Your task to perform on an android device: Add "razer blade" to the cart on walmart.com Image 0: 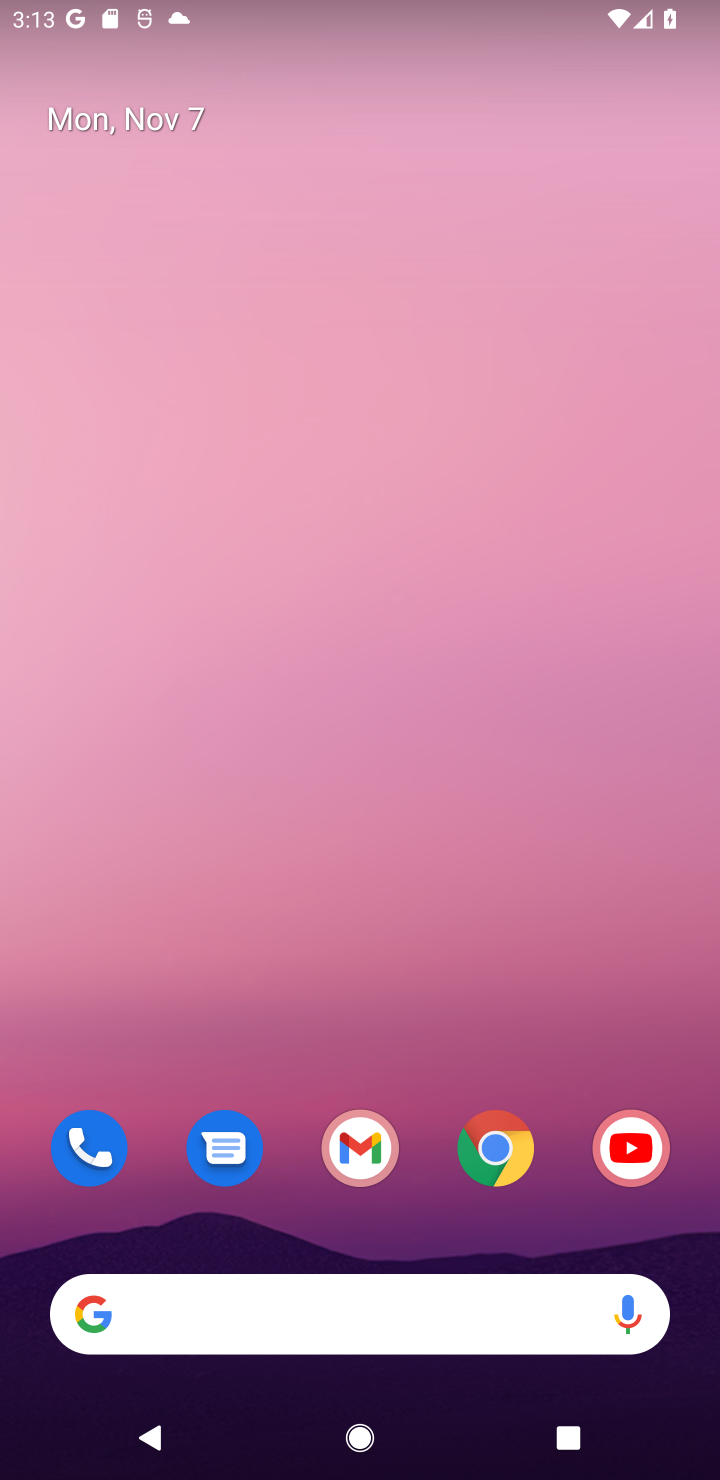
Step 0: drag from (337, 677) to (318, 347)
Your task to perform on an android device: Add "razer blade" to the cart on walmart.com Image 1: 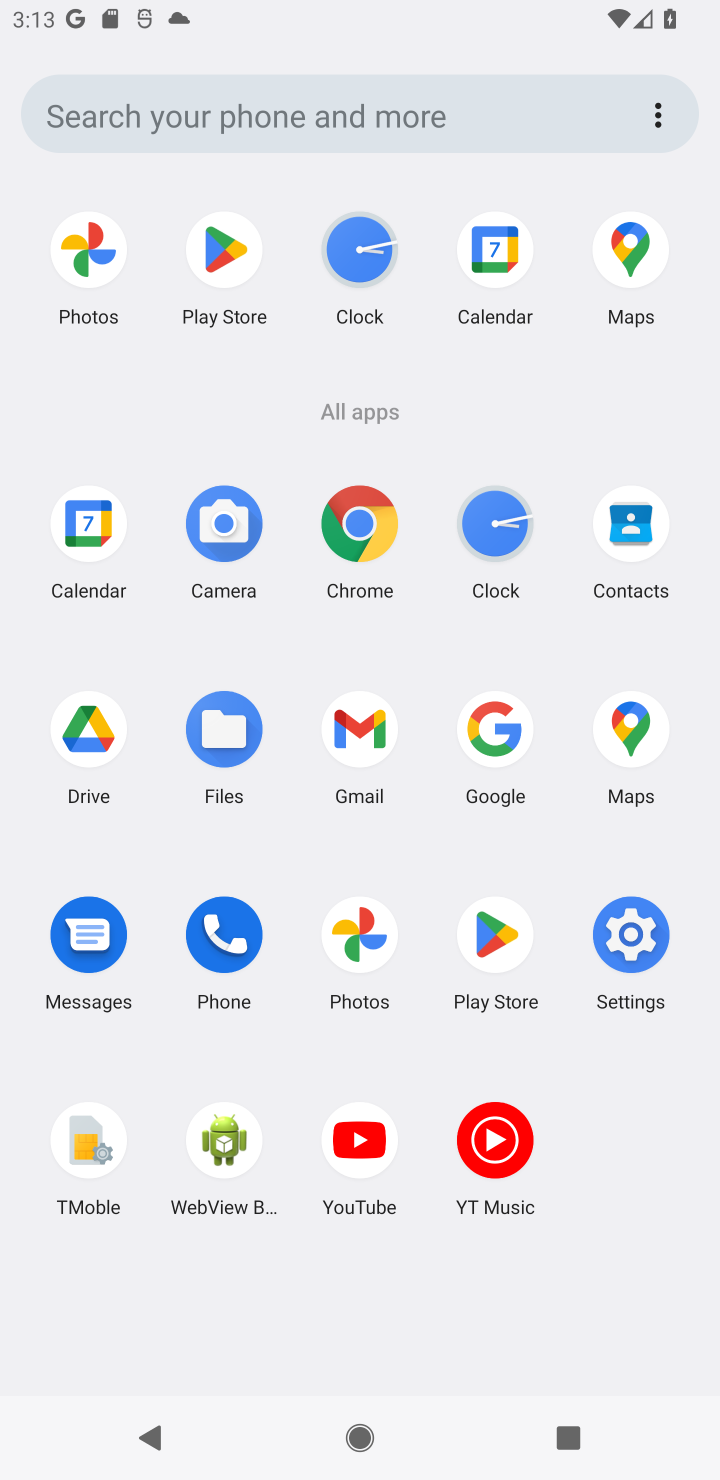
Step 1: click (366, 539)
Your task to perform on an android device: Add "razer blade" to the cart on walmart.com Image 2: 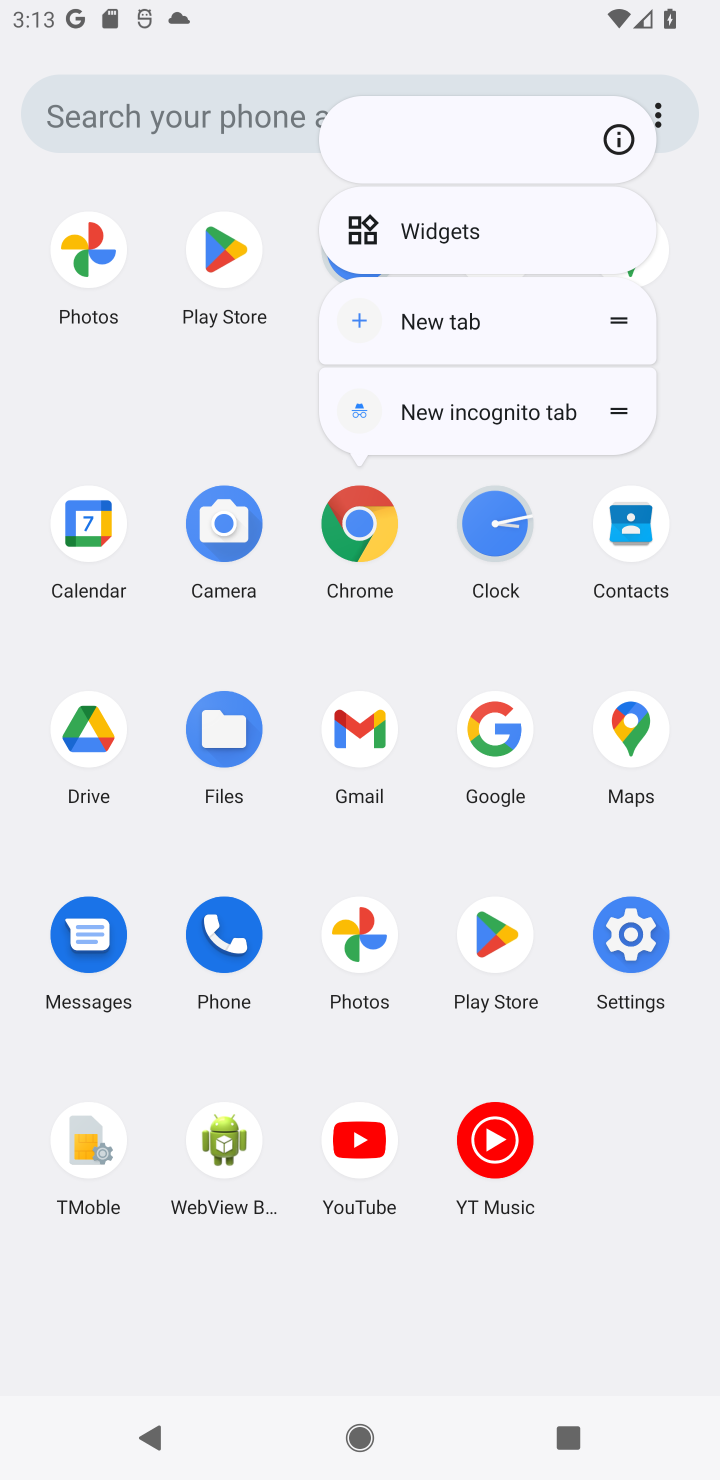
Step 2: click (366, 540)
Your task to perform on an android device: Add "razer blade" to the cart on walmart.com Image 3: 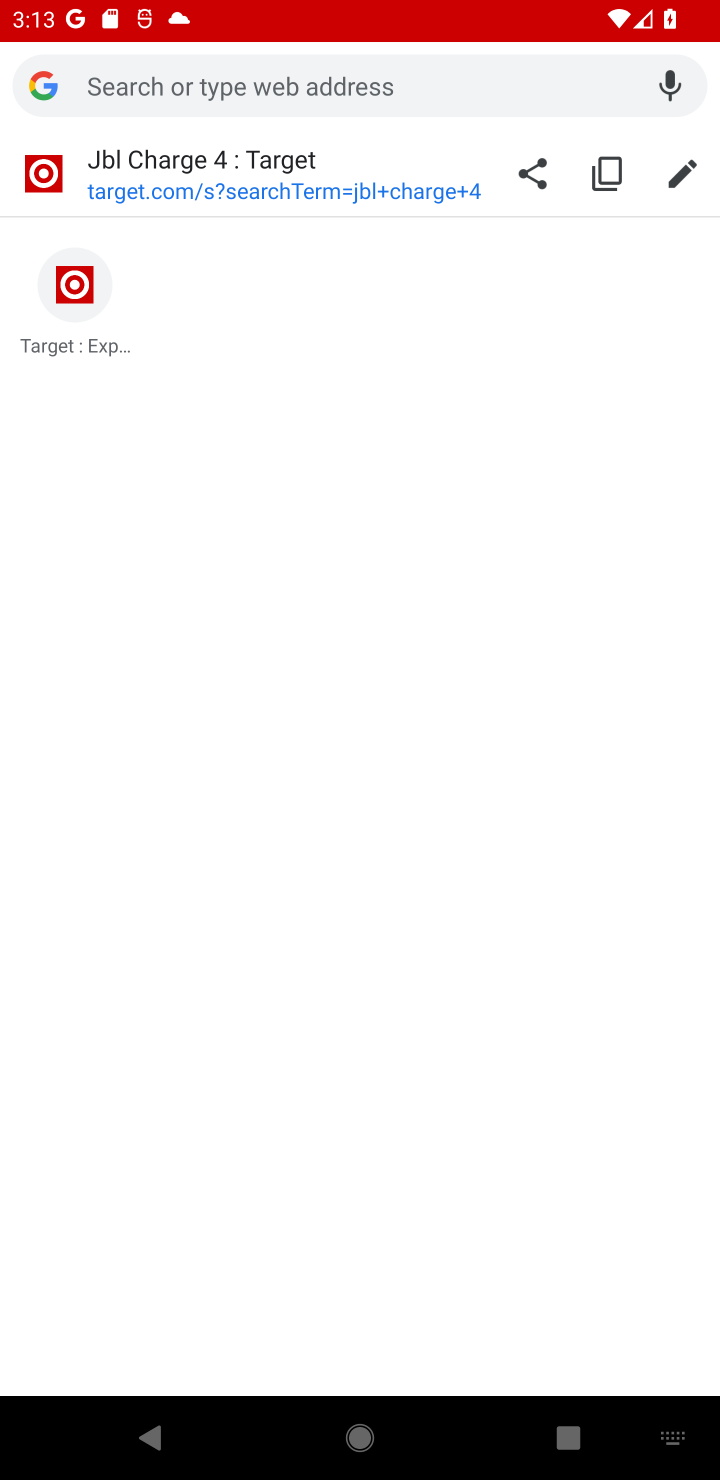
Step 3: type "walmart.com"
Your task to perform on an android device: Add "razer blade" to the cart on walmart.com Image 4: 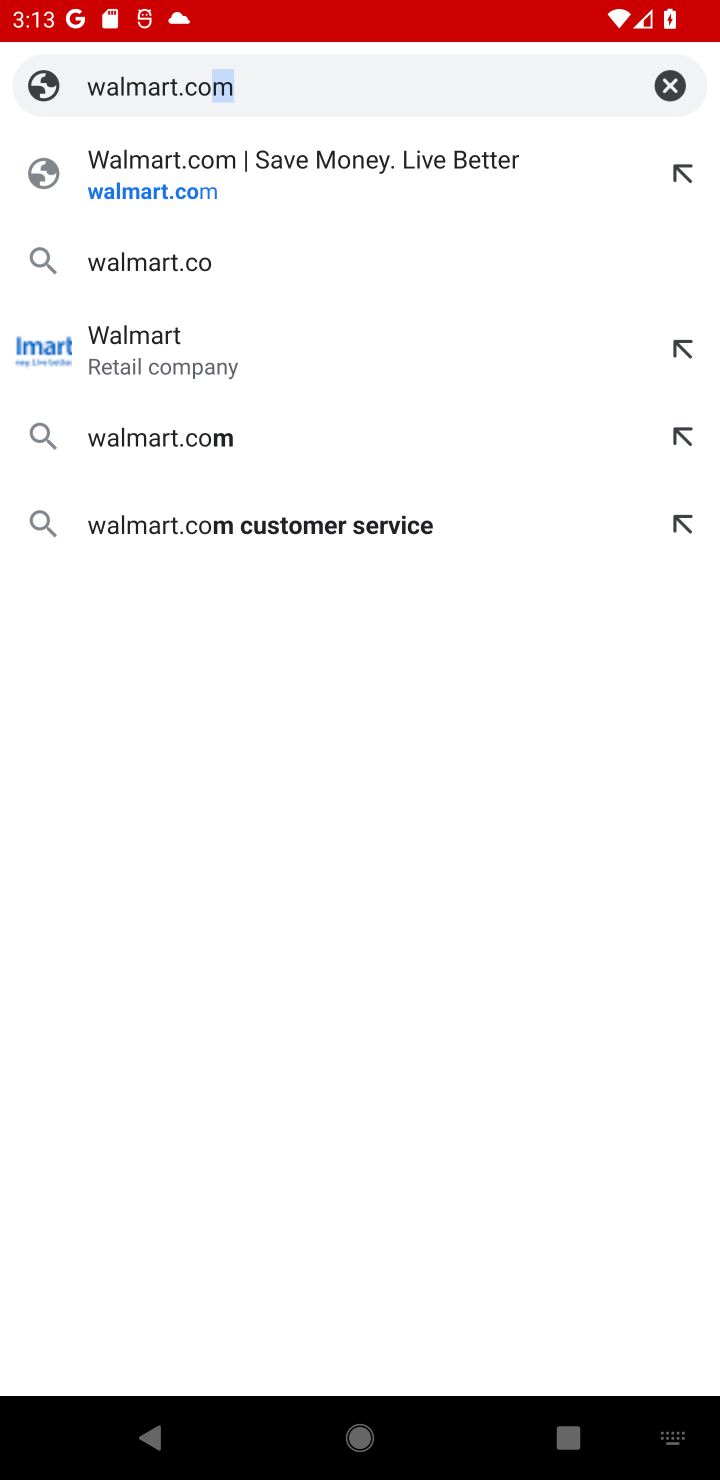
Step 4: press enter
Your task to perform on an android device: Add "razer blade" to the cart on walmart.com Image 5: 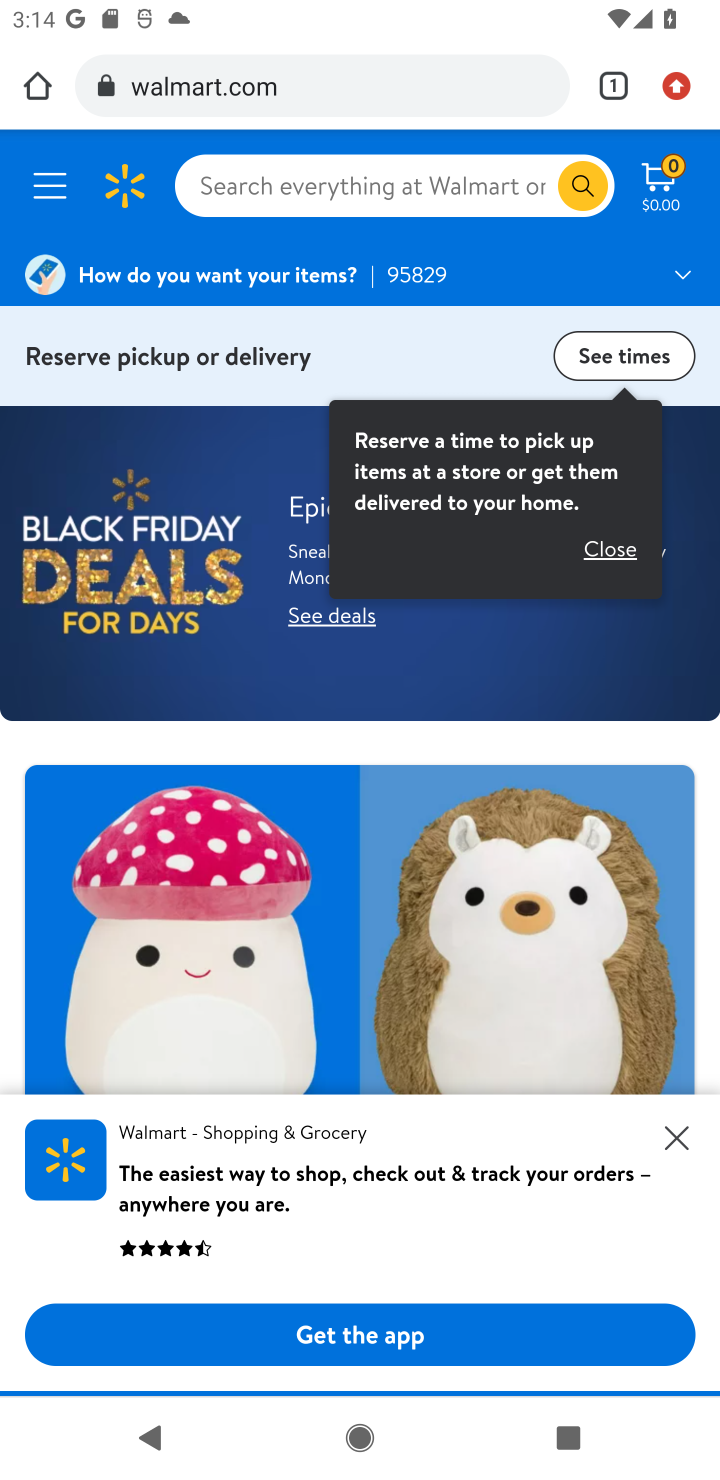
Step 5: click (322, 177)
Your task to perform on an android device: Add "razer blade" to the cart on walmart.com Image 6: 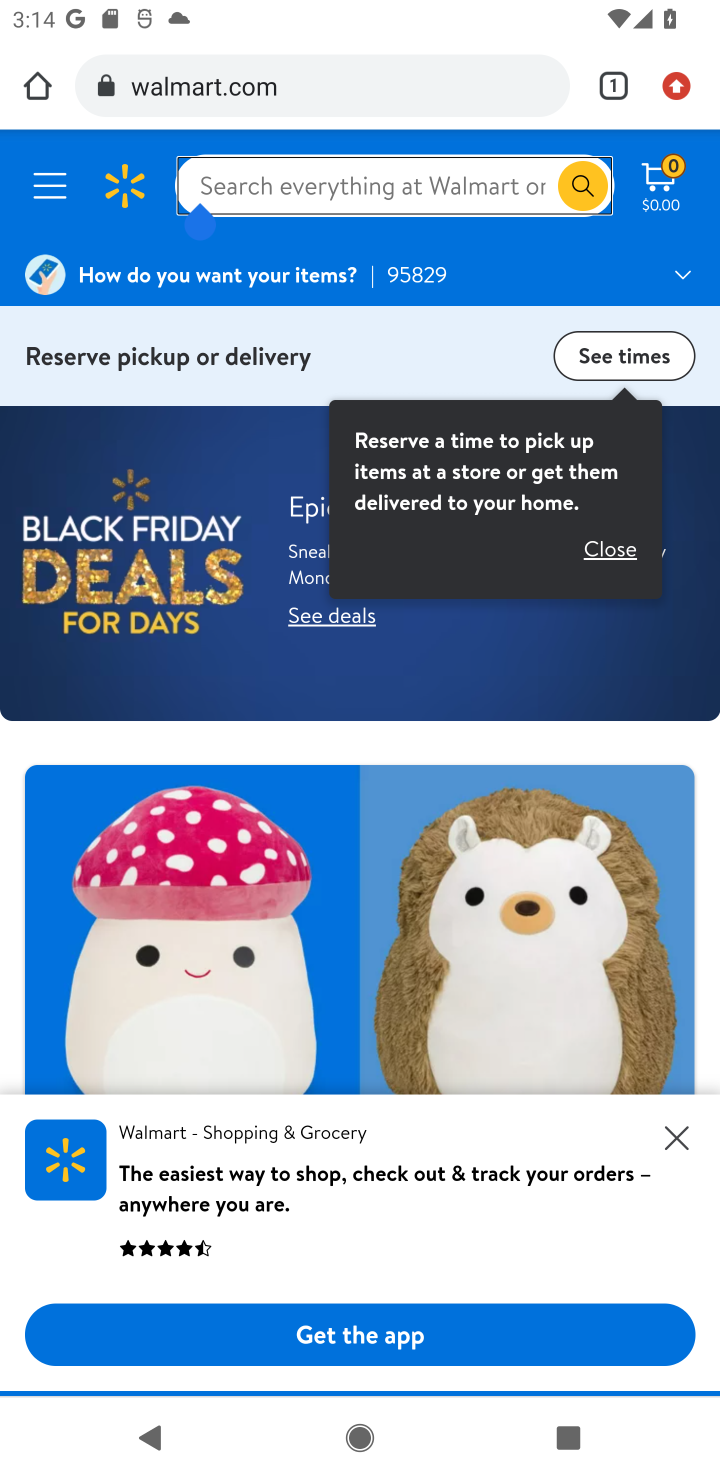
Step 6: type "razer blade"
Your task to perform on an android device: Add "razer blade" to the cart on walmart.com Image 7: 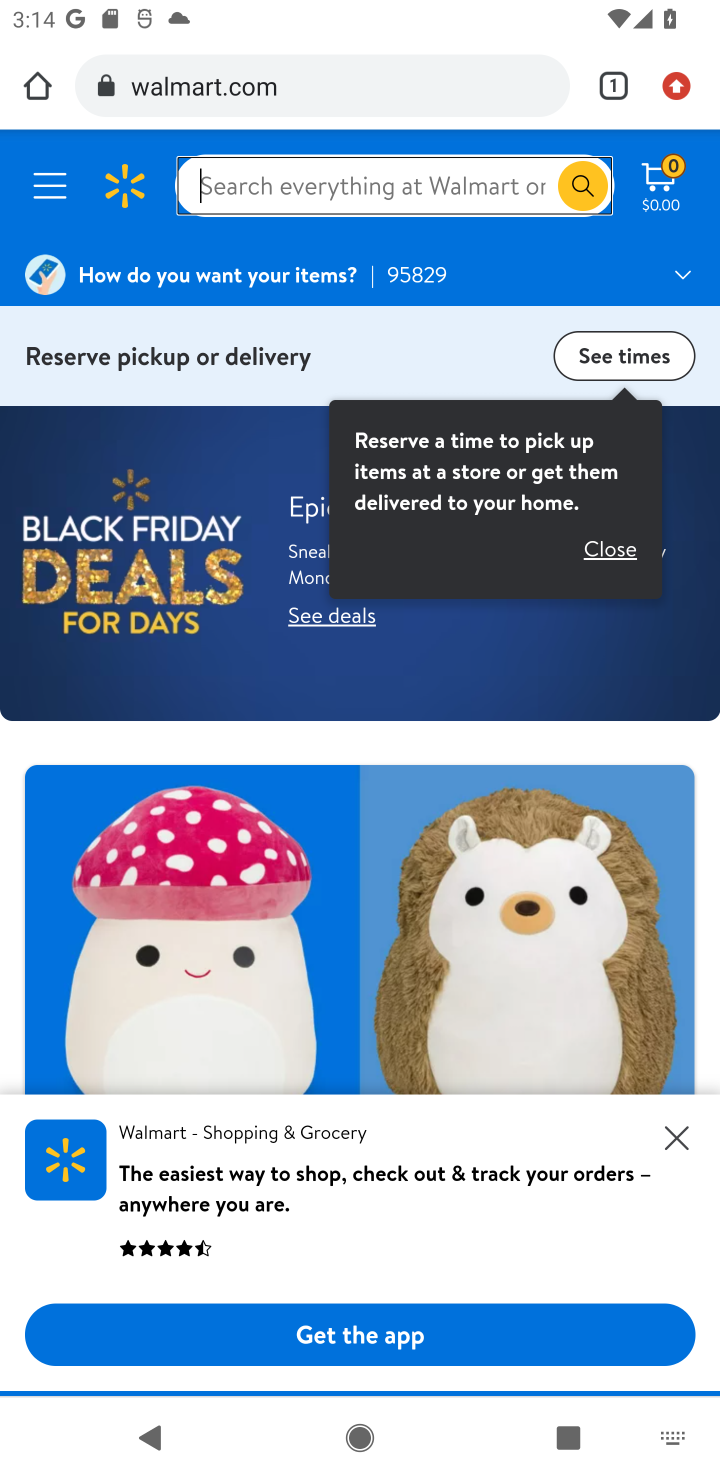
Step 7: press enter
Your task to perform on an android device: Add "razer blade" to the cart on walmart.com Image 8: 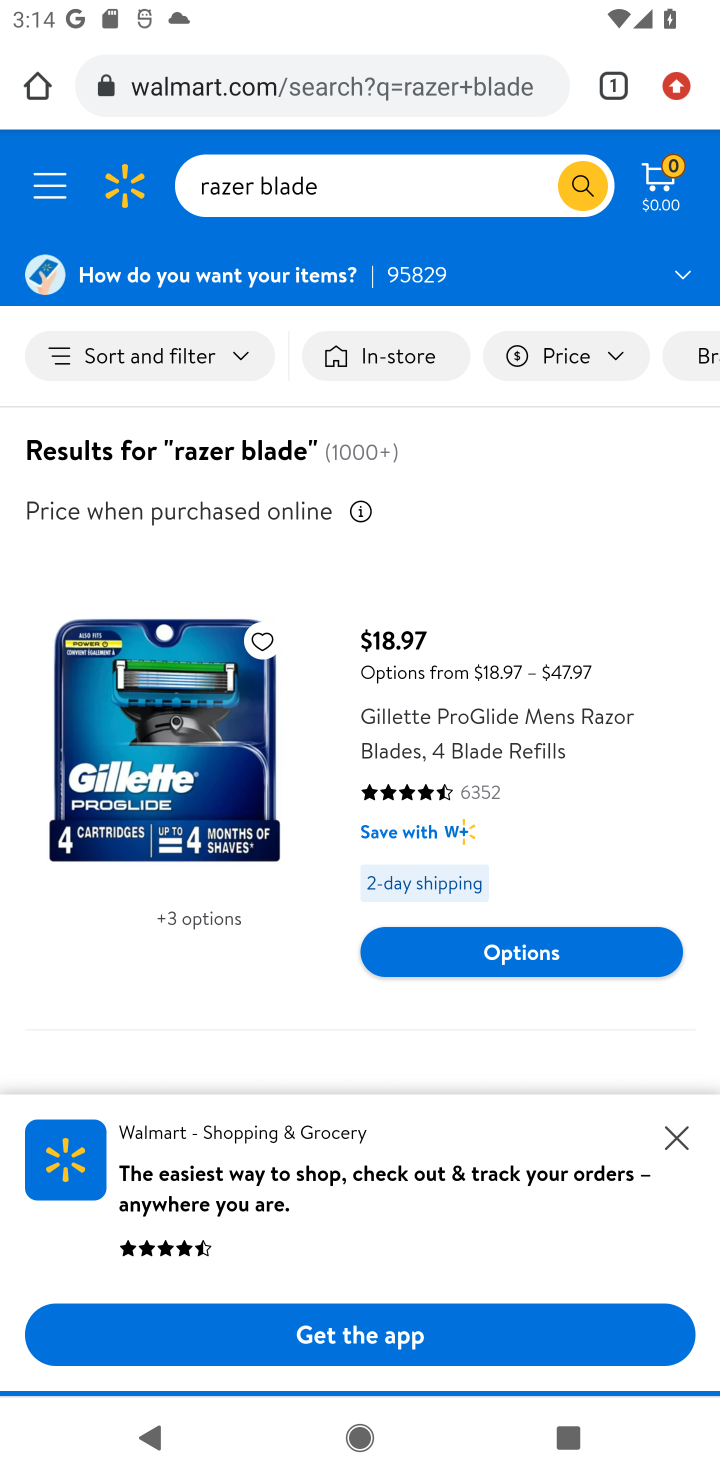
Step 8: click (663, 1139)
Your task to perform on an android device: Add "razer blade" to the cart on walmart.com Image 9: 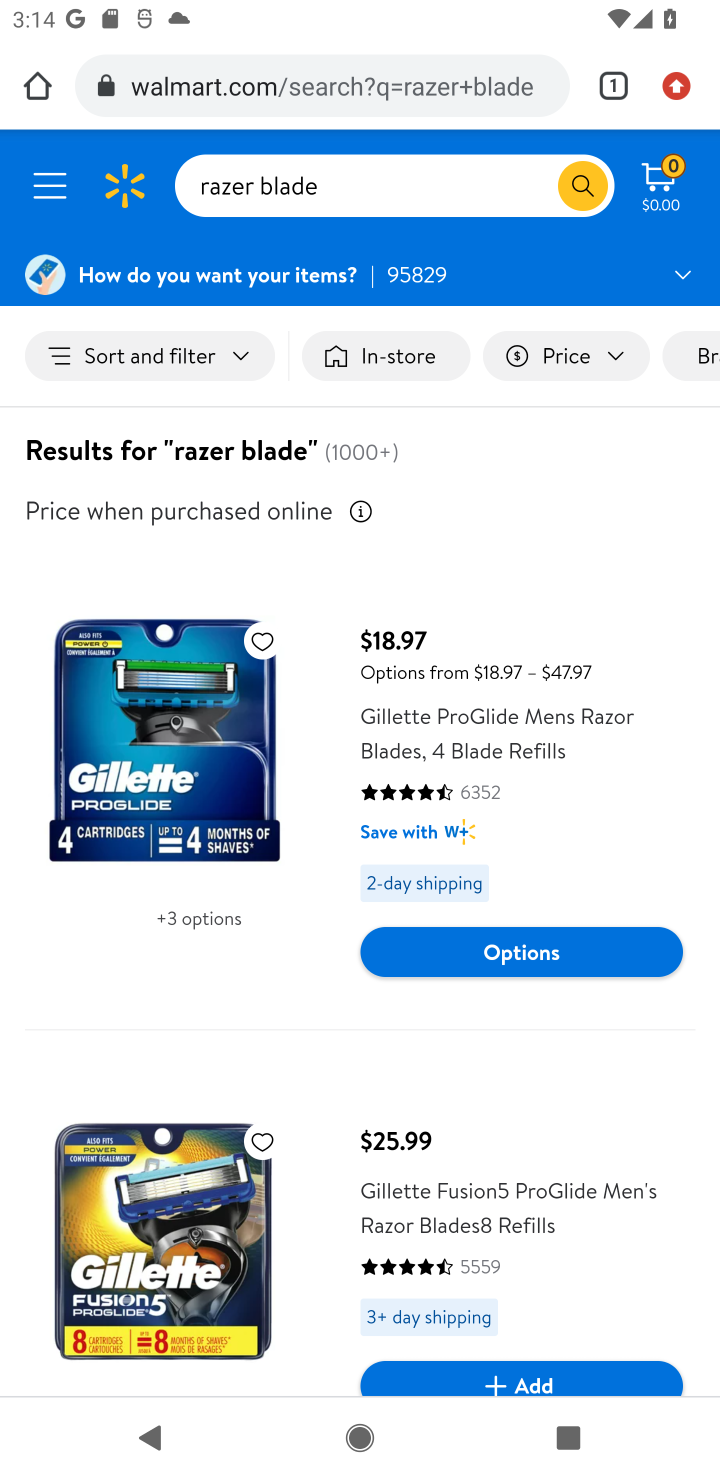
Step 9: drag from (530, 1223) to (604, 808)
Your task to perform on an android device: Add "razer blade" to the cart on walmart.com Image 10: 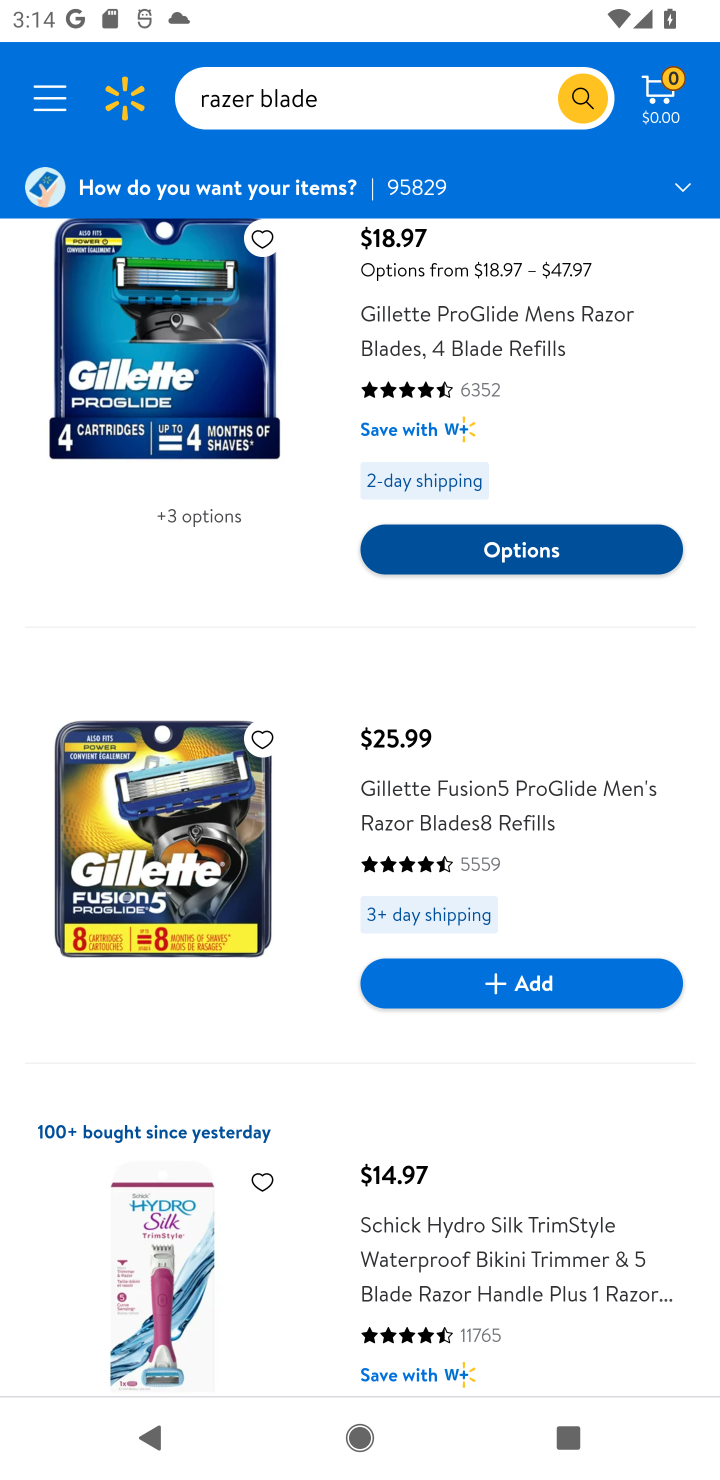
Step 10: click (526, 990)
Your task to perform on an android device: Add "razer blade" to the cart on walmart.com Image 11: 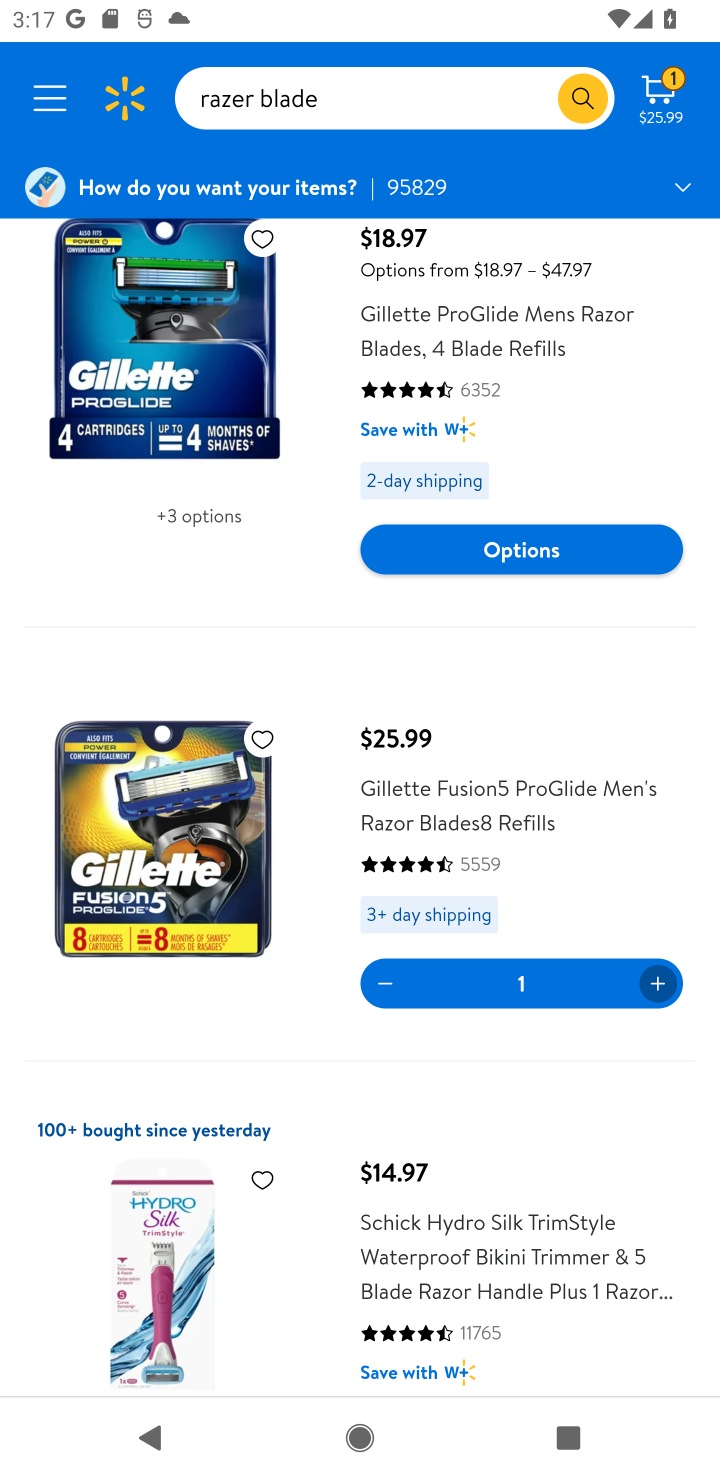
Step 11: task complete